Your task to perform on an android device: turn off notifications in google photos Image 0: 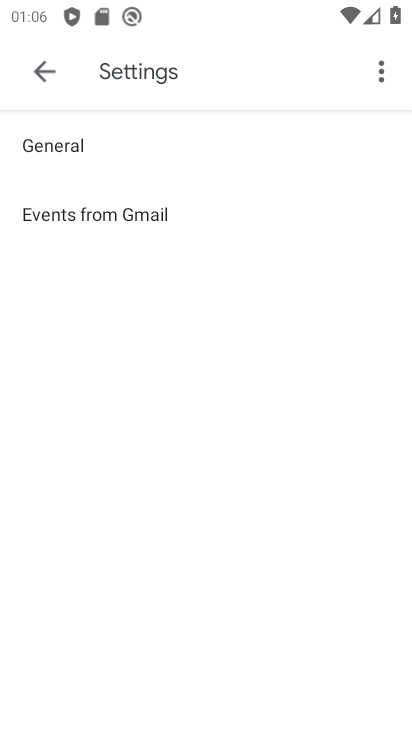
Step 0: press home button
Your task to perform on an android device: turn off notifications in google photos Image 1: 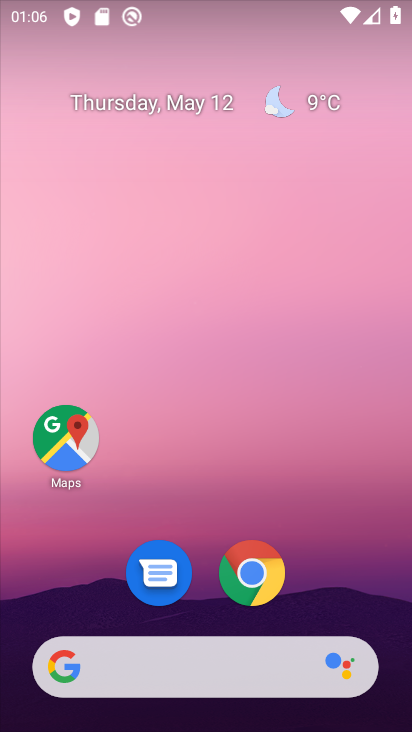
Step 1: drag from (304, 596) to (298, 99)
Your task to perform on an android device: turn off notifications in google photos Image 2: 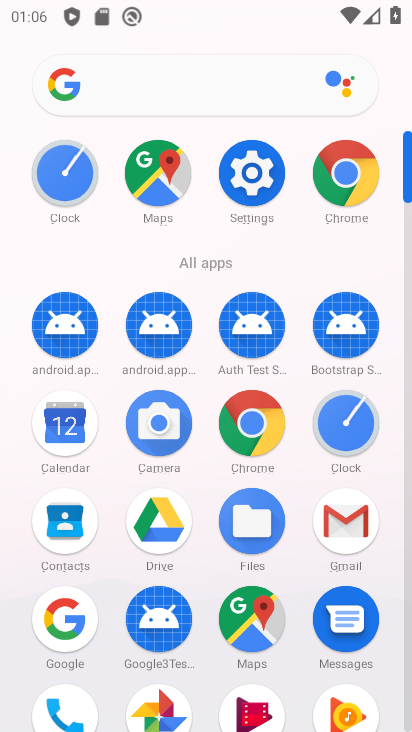
Step 2: click (173, 711)
Your task to perform on an android device: turn off notifications in google photos Image 3: 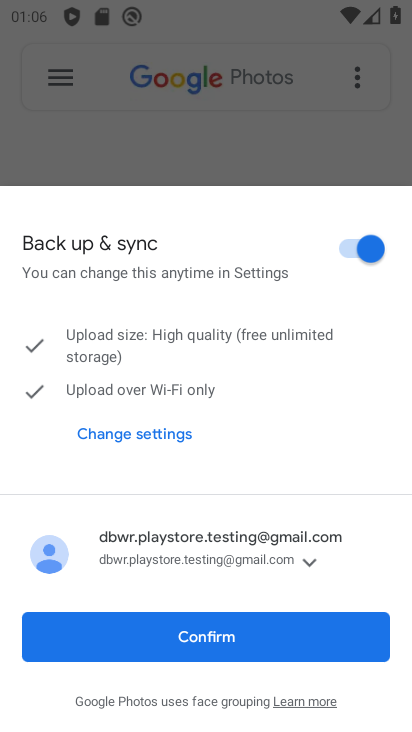
Step 3: click (39, 77)
Your task to perform on an android device: turn off notifications in google photos Image 4: 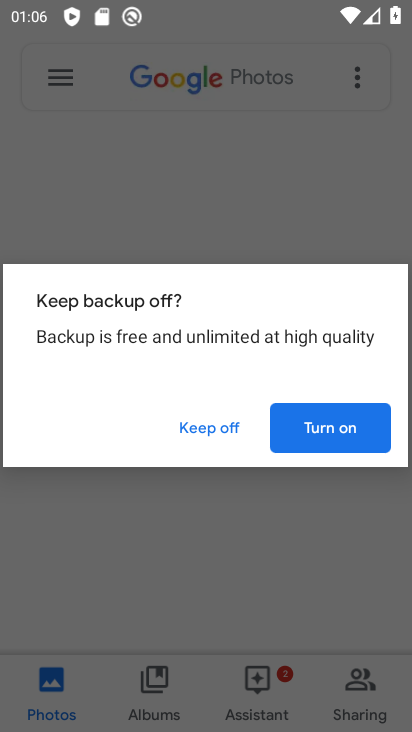
Step 4: click (297, 437)
Your task to perform on an android device: turn off notifications in google photos Image 5: 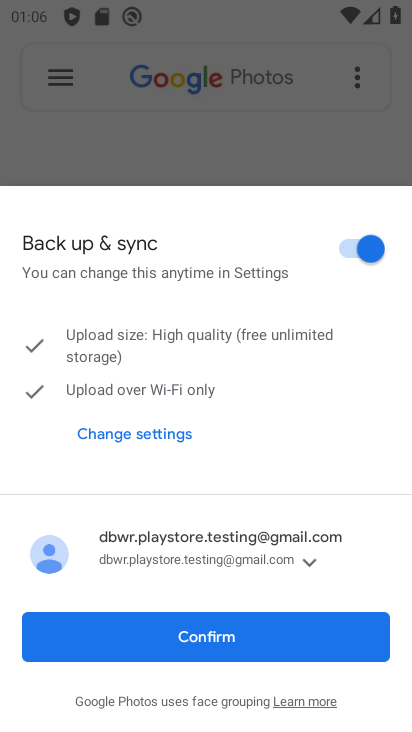
Step 5: click (229, 626)
Your task to perform on an android device: turn off notifications in google photos Image 6: 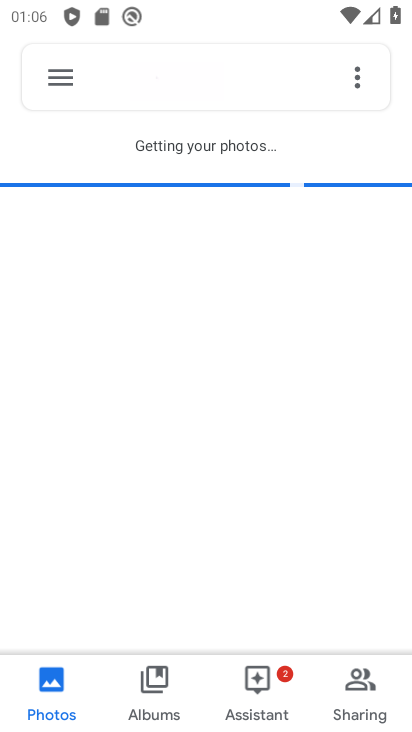
Step 6: click (61, 81)
Your task to perform on an android device: turn off notifications in google photos Image 7: 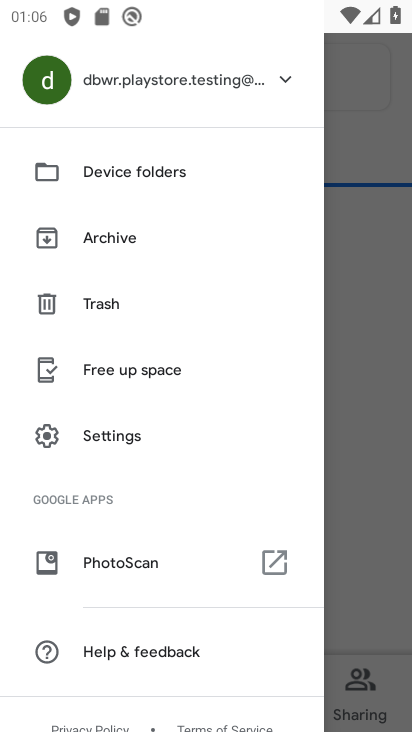
Step 7: click (111, 440)
Your task to perform on an android device: turn off notifications in google photos Image 8: 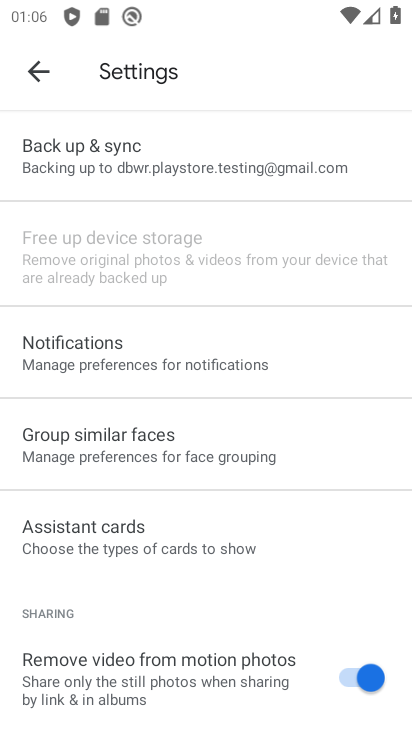
Step 8: click (136, 372)
Your task to perform on an android device: turn off notifications in google photos Image 9: 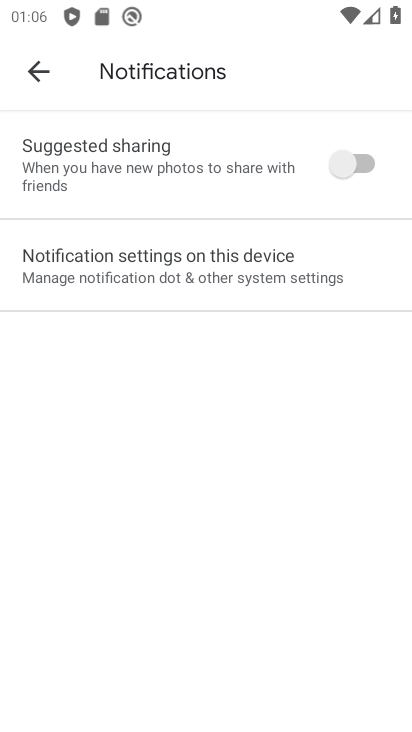
Step 9: click (304, 276)
Your task to perform on an android device: turn off notifications in google photos Image 10: 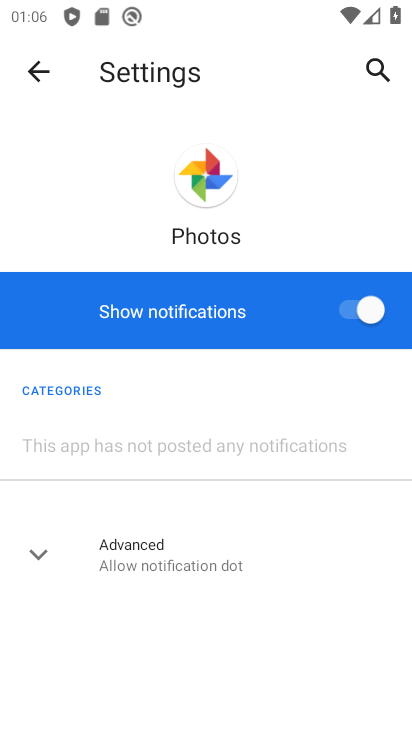
Step 10: click (335, 301)
Your task to perform on an android device: turn off notifications in google photos Image 11: 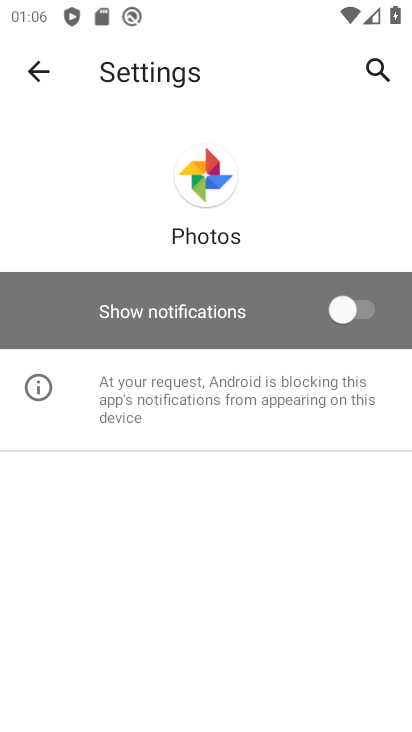
Step 11: task complete